Your task to perform on an android device: check google app version Image 0: 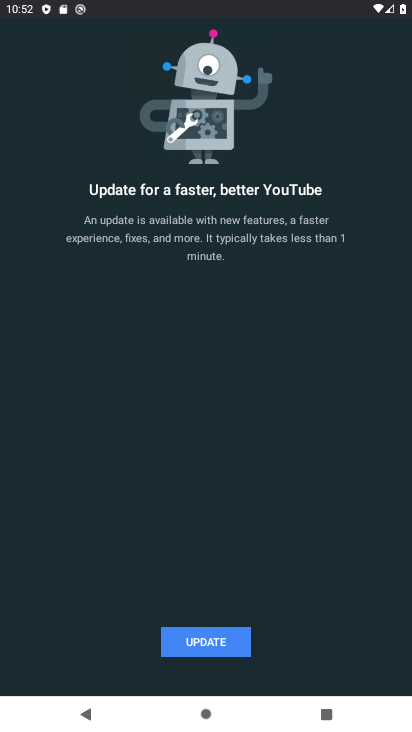
Step 0: press back button
Your task to perform on an android device: check google app version Image 1: 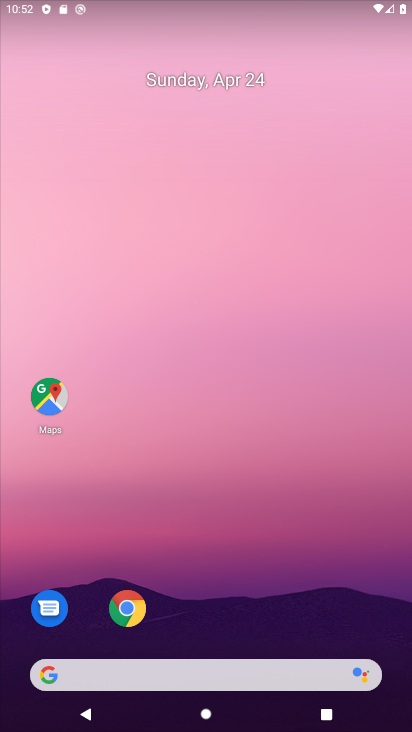
Step 1: drag from (237, 404) to (216, 50)
Your task to perform on an android device: check google app version Image 2: 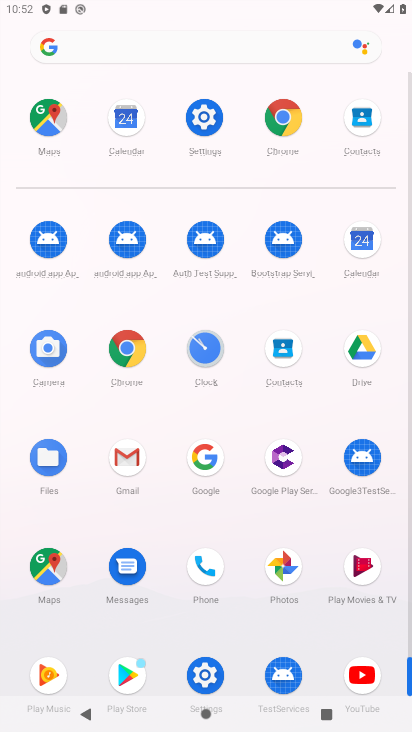
Step 2: click (202, 459)
Your task to perform on an android device: check google app version Image 3: 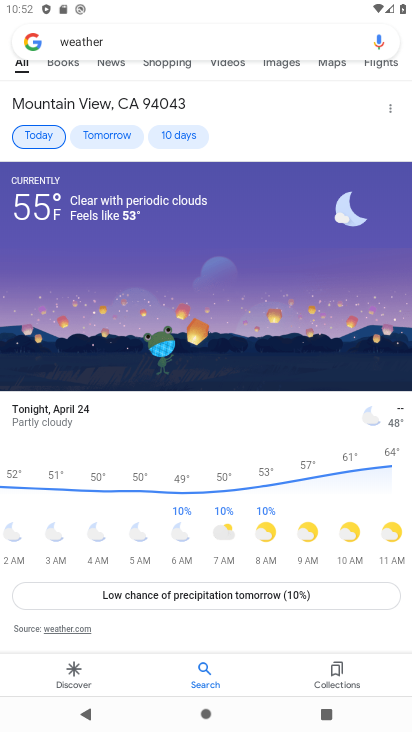
Step 3: drag from (151, 160) to (171, 627)
Your task to perform on an android device: check google app version Image 4: 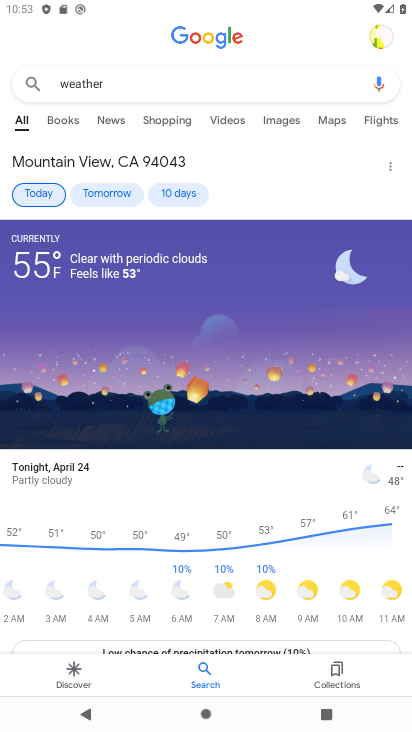
Step 4: click (373, 39)
Your task to perform on an android device: check google app version Image 5: 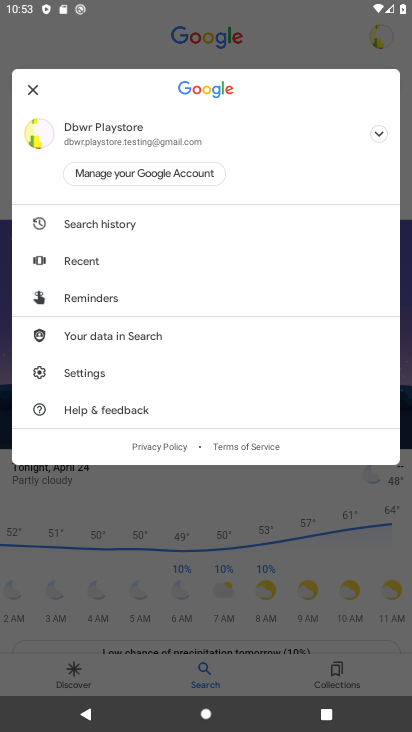
Step 5: click (77, 371)
Your task to perform on an android device: check google app version Image 6: 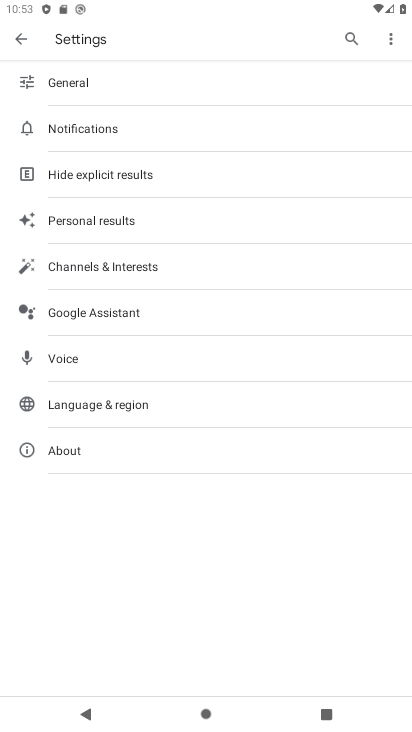
Step 6: click (77, 450)
Your task to perform on an android device: check google app version Image 7: 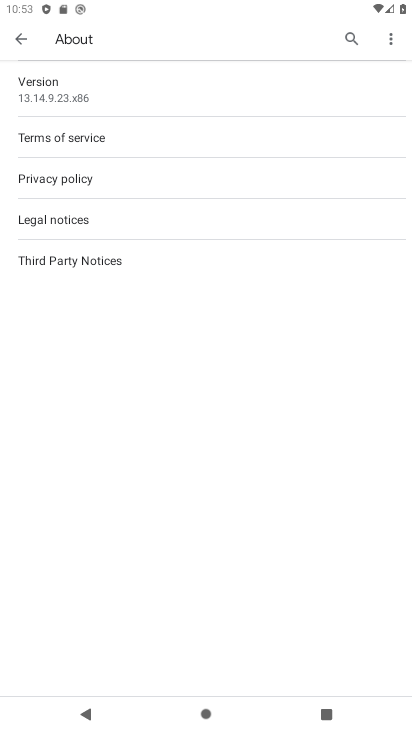
Step 7: task complete